Your task to perform on an android device: read, delete, or share a saved page in the chrome app Image 0: 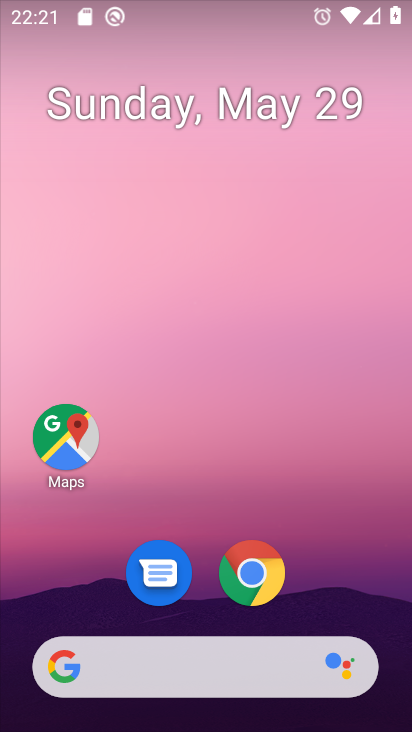
Step 0: click (263, 574)
Your task to perform on an android device: read, delete, or share a saved page in the chrome app Image 1: 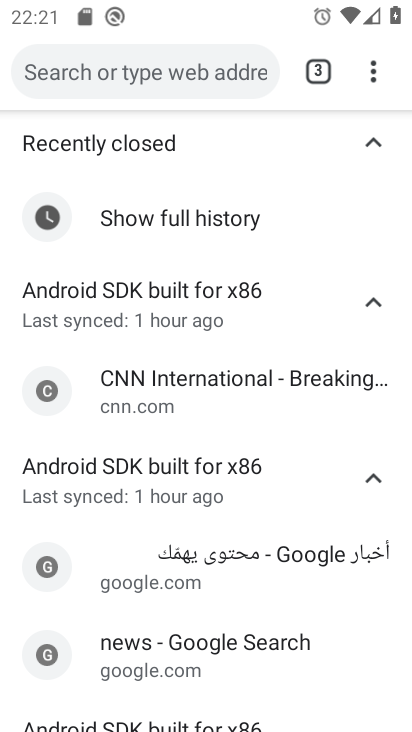
Step 1: click (370, 80)
Your task to perform on an android device: read, delete, or share a saved page in the chrome app Image 2: 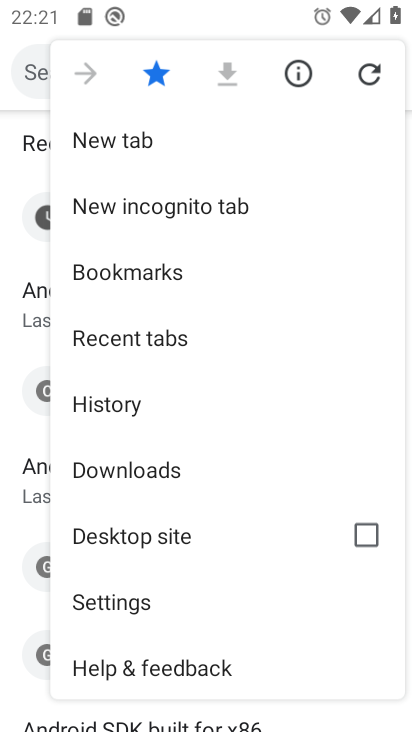
Step 2: click (168, 469)
Your task to perform on an android device: read, delete, or share a saved page in the chrome app Image 3: 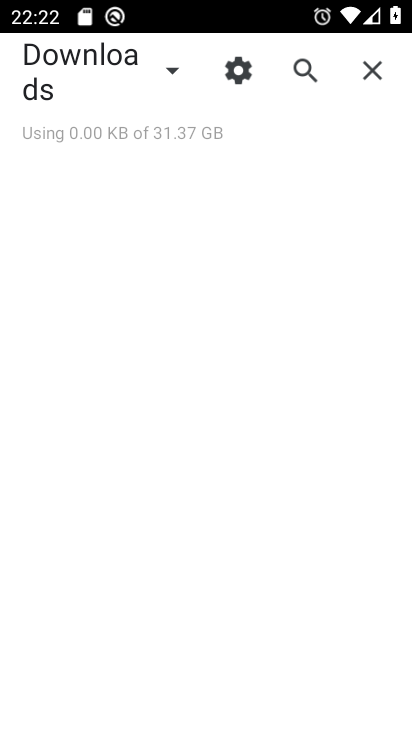
Step 3: task complete